Your task to perform on an android device: add a label to a message in the gmail app Image 0: 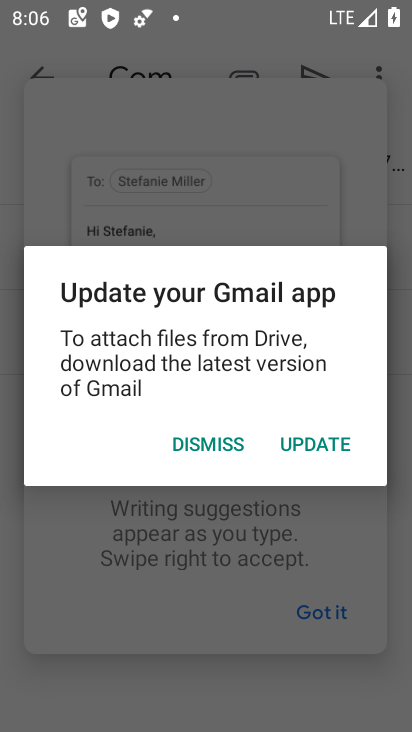
Step 0: press home button
Your task to perform on an android device: add a label to a message in the gmail app Image 1: 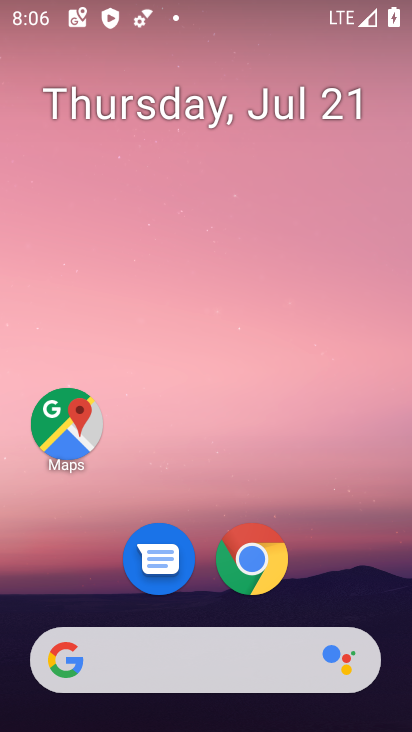
Step 1: drag from (212, 587) to (266, 63)
Your task to perform on an android device: add a label to a message in the gmail app Image 2: 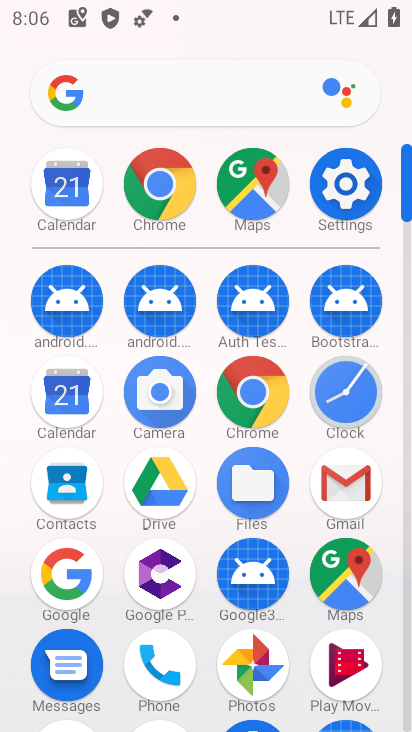
Step 2: click (354, 496)
Your task to perform on an android device: add a label to a message in the gmail app Image 3: 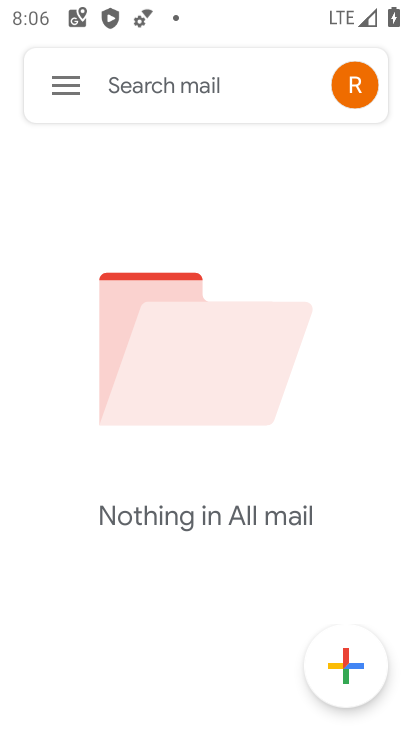
Step 3: click (55, 80)
Your task to perform on an android device: add a label to a message in the gmail app Image 4: 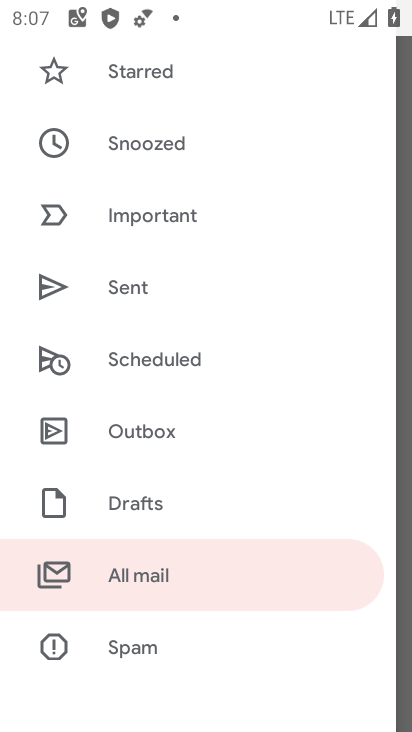
Step 4: task complete